Your task to perform on an android device: Open CNN.com Image 0: 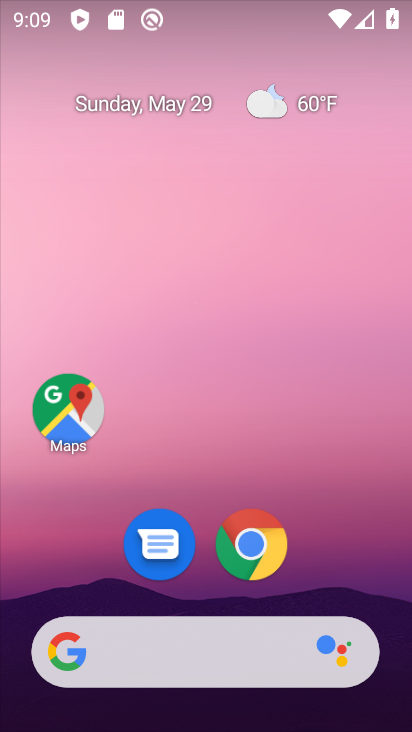
Step 0: drag from (202, 588) to (226, 82)
Your task to perform on an android device: Open CNN.com Image 1: 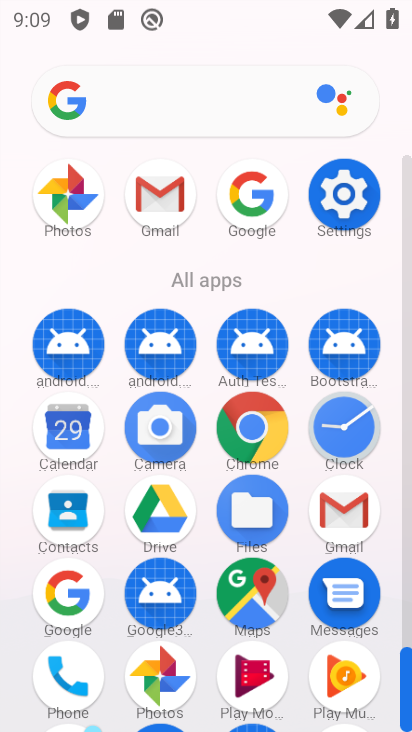
Step 1: click (77, 599)
Your task to perform on an android device: Open CNN.com Image 2: 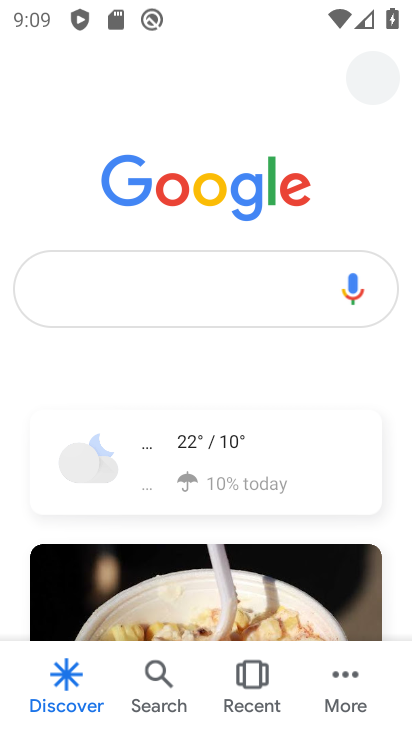
Step 2: click (169, 294)
Your task to perform on an android device: Open CNN.com Image 3: 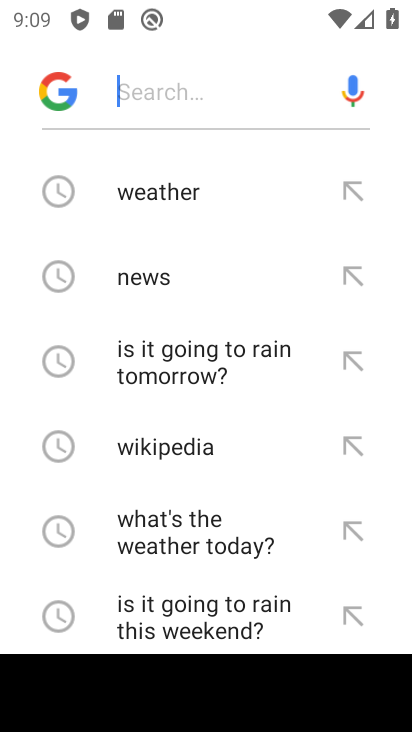
Step 3: drag from (191, 572) to (181, 125)
Your task to perform on an android device: Open CNN.com Image 4: 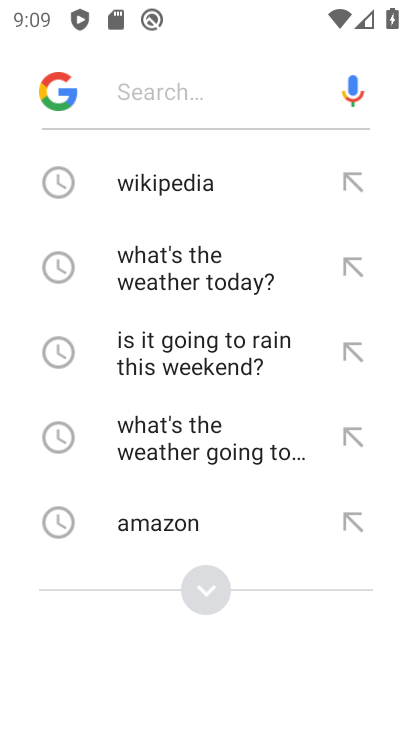
Step 4: click (207, 596)
Your task to perform on an android device: Open CNN.com Image 5: 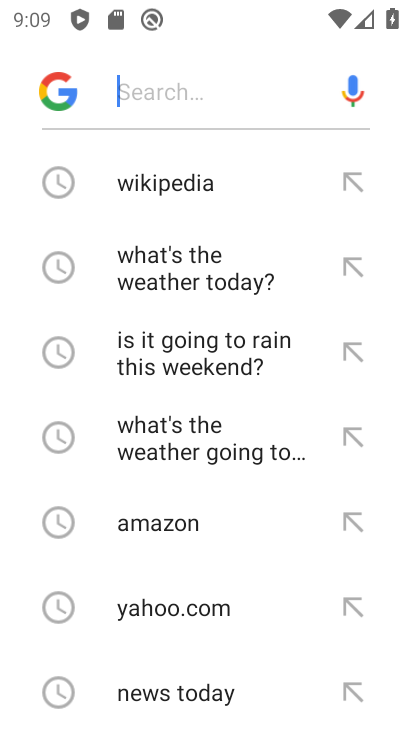
Step 5: drag from (243, 622) to (270, 192)
Your task to perform on an android device: Open CNN.com Image 6: 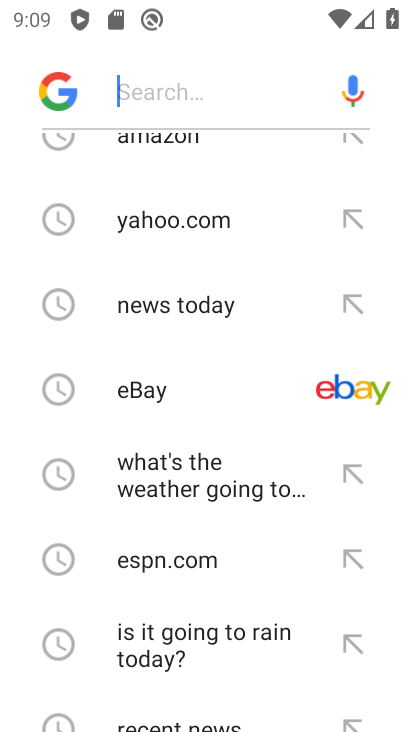
Step 6: drag from (196, 626) to (281, 173)
Your task to perform on an android device: Open CNN.com Image 7: 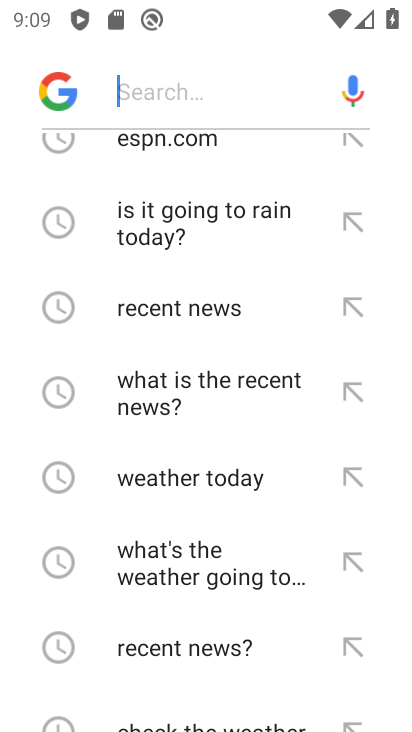
Step 7: drag from (180, 620) to (262, 126)
Your task to perform on an android device: Open CNN.com Image 8: 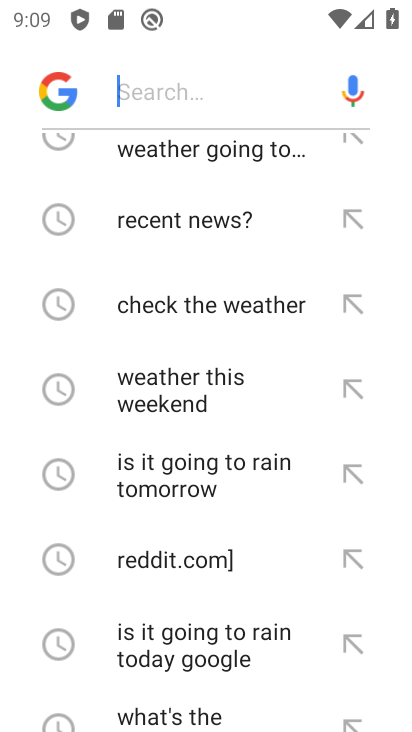
Step 8: drag from (194, 667) to (213, 243)
Your task to perform on an android device: Open CNN.com Image 9: 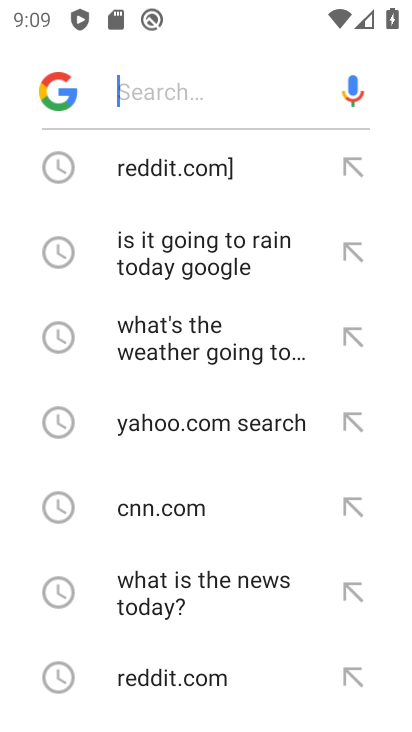
Step 9: click (159, 515)
Your task to perform on an android device: Open CNN.com Image 10: 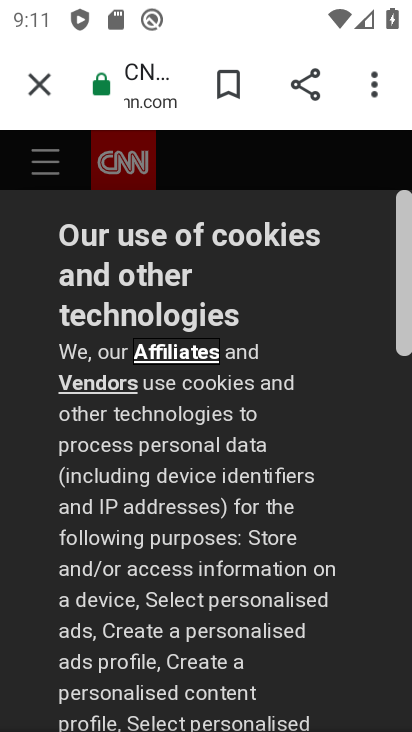
Step 10: task complete